Your task to perform on an android device: Go to wifi settings Image 0: 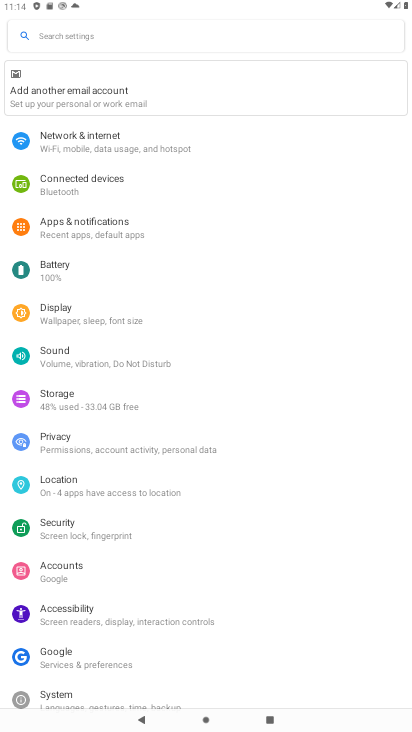
Step 0: click (123, 133)
Your task to perform on an android device: Go to wifi settings Image 1: 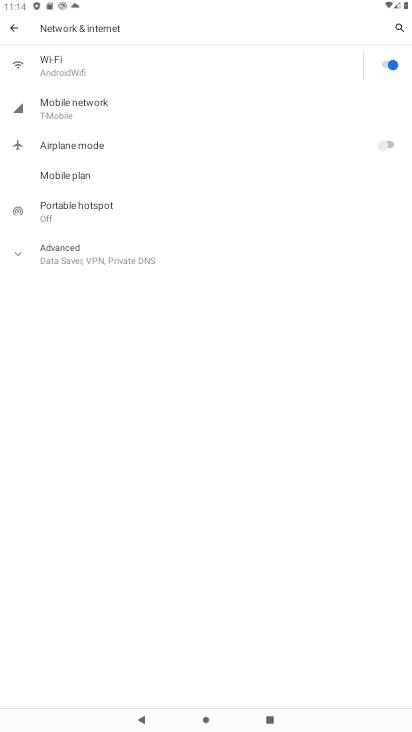
Step 1: click (83, 74)
Your task to perform on an android device: Go to wifi settings Image 2: 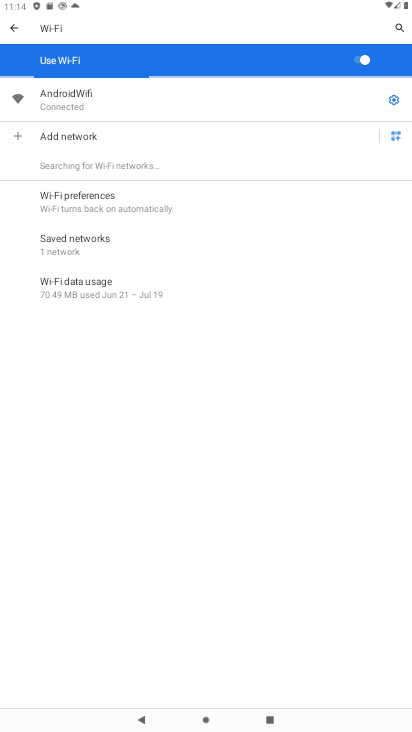
Step 2: task complete